Your task to perform on an android device: change the upload size in google photos Image 0: 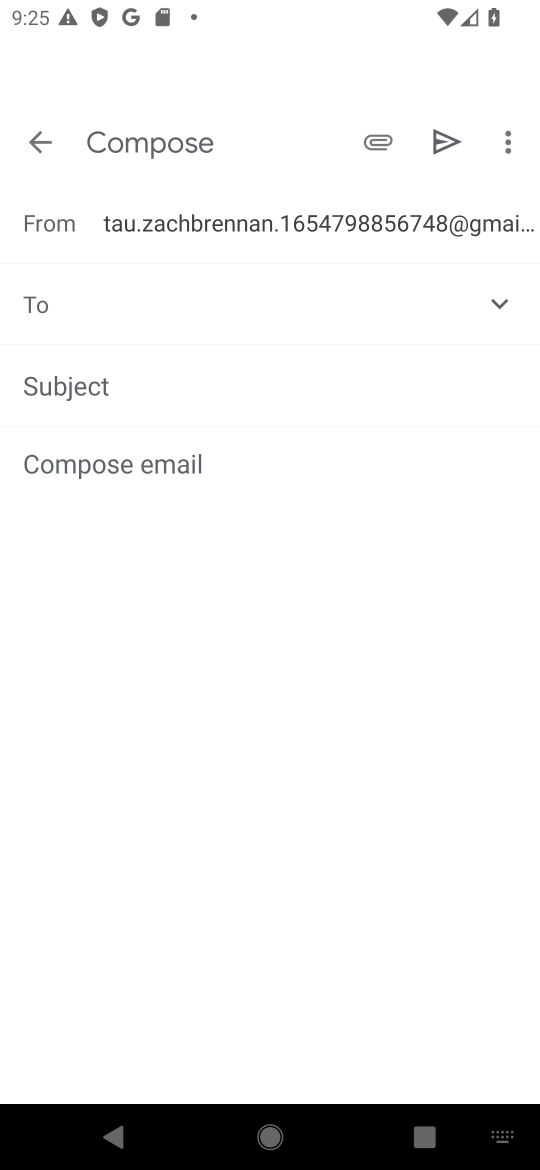
Step 0: press home button
Your task to perform on an android device: change the upload size in google photos Image 1: 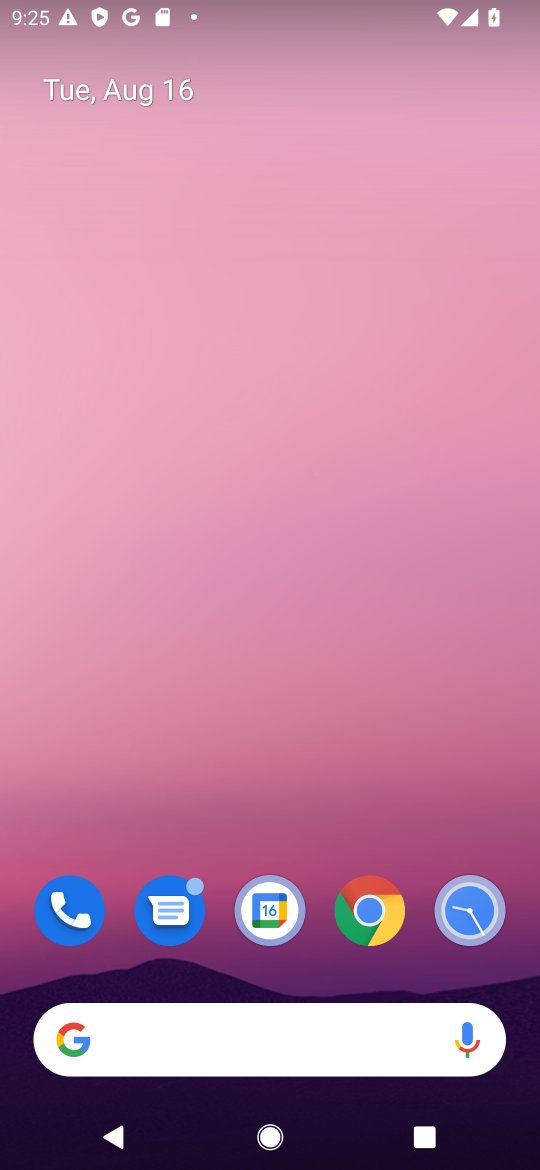
Step 1: drag from (304, 799) to (246, 8)
Your task to perform on an android device: change the upload size in google photos Image 2: 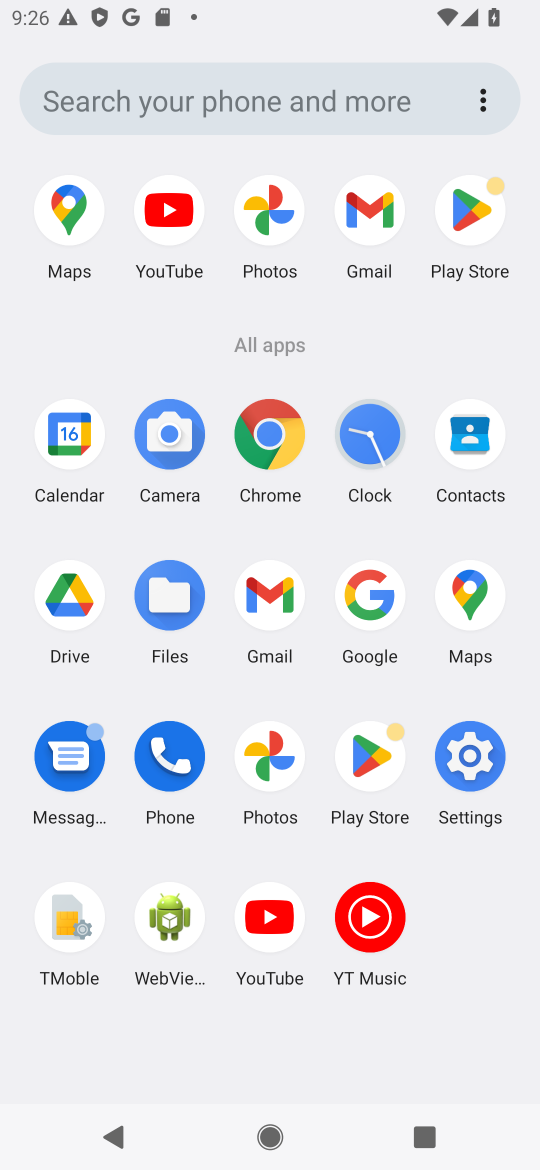
Step 2: click (265, 741)
Your task to perform on an android device: change the upload size in google photos Image 3: 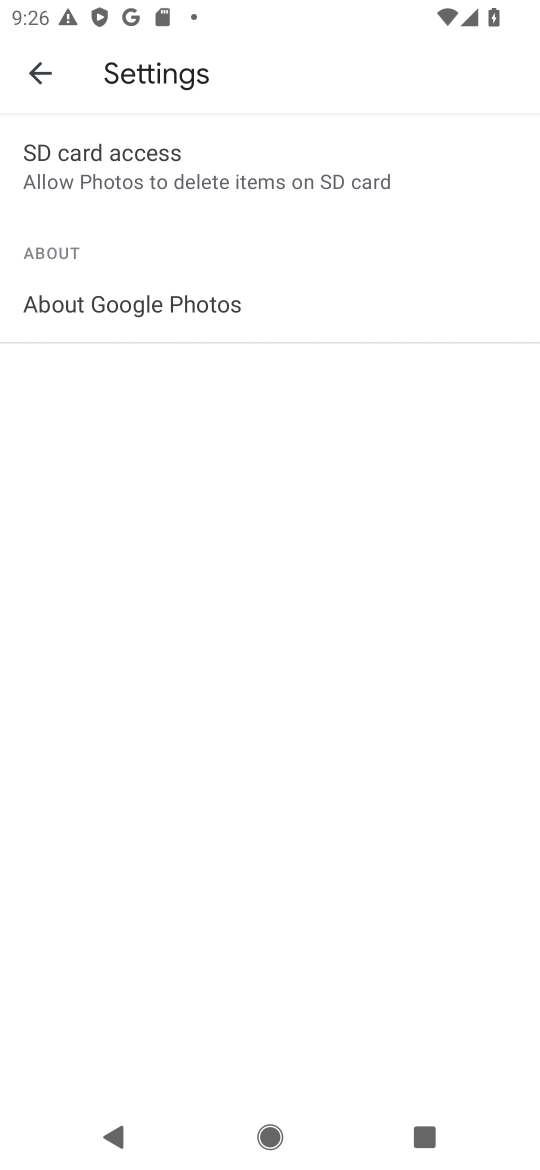
Step 3: click (41, 78)
Your task to perform on an android device: change the upload size in google photos Image 4: 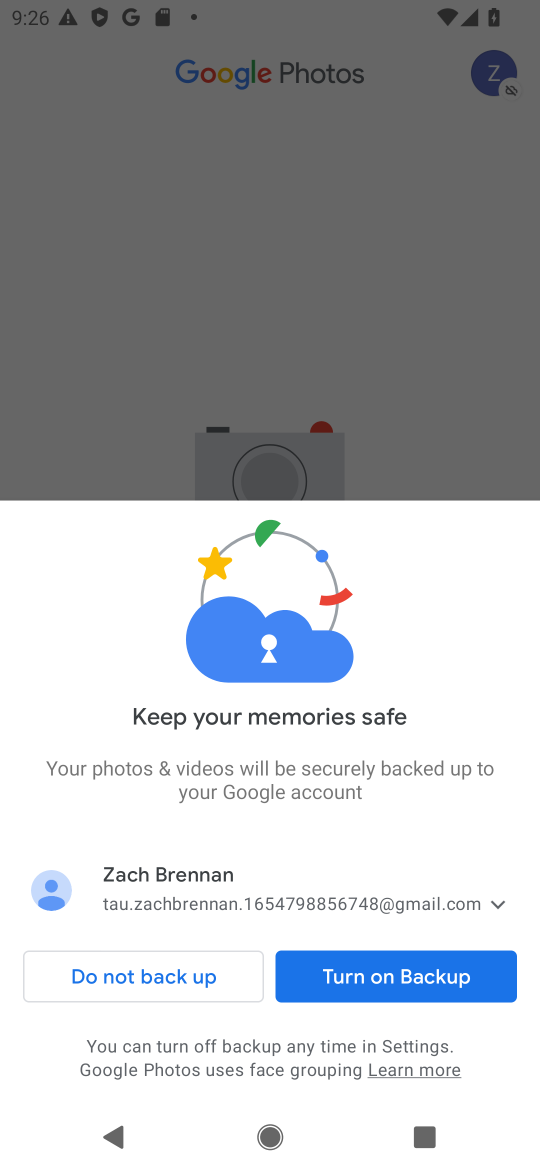
Step 4: click (441, 976)
Your task to perform on an android device: change the upload size in google photos Image 5: 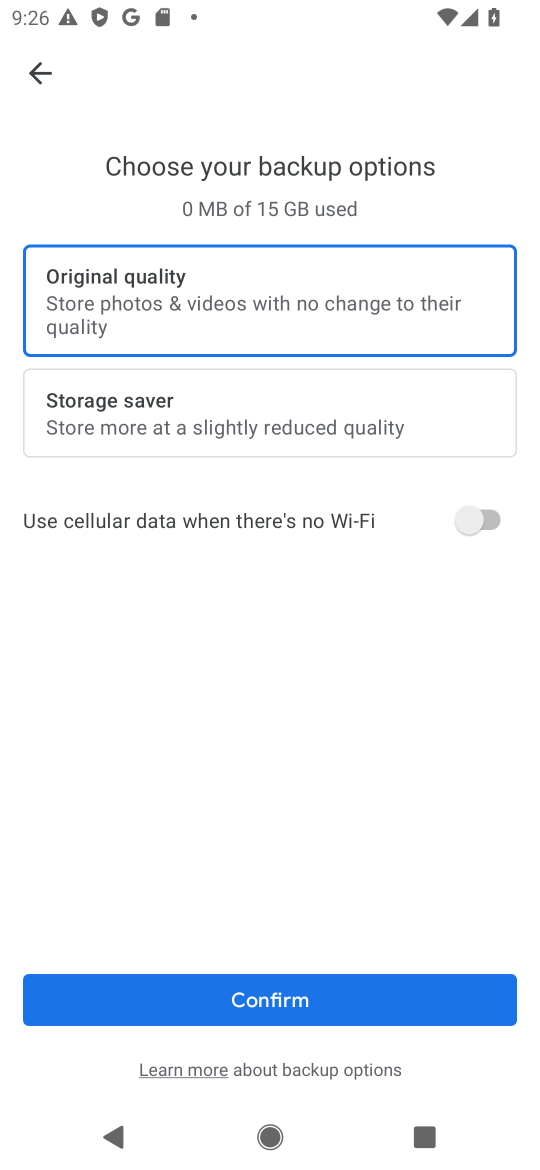
Step 5: click (435, 998)
Your task to perform on an android device: change the upload size in google photos Image 6: 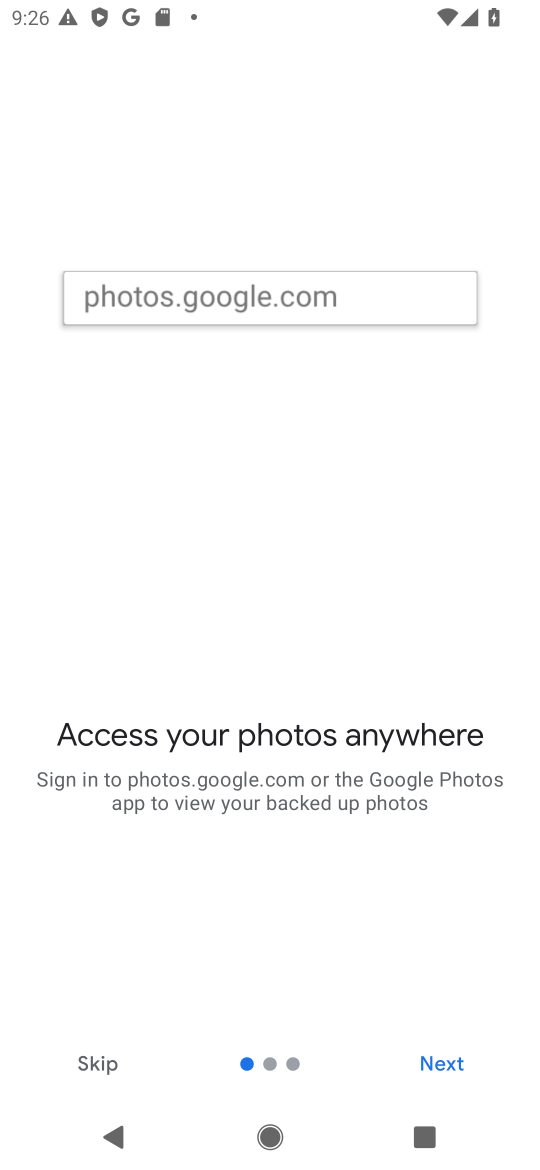
Step 6: click (447, 1060)
Your task to perform on an android device: change the upload size in google photos Image 7: 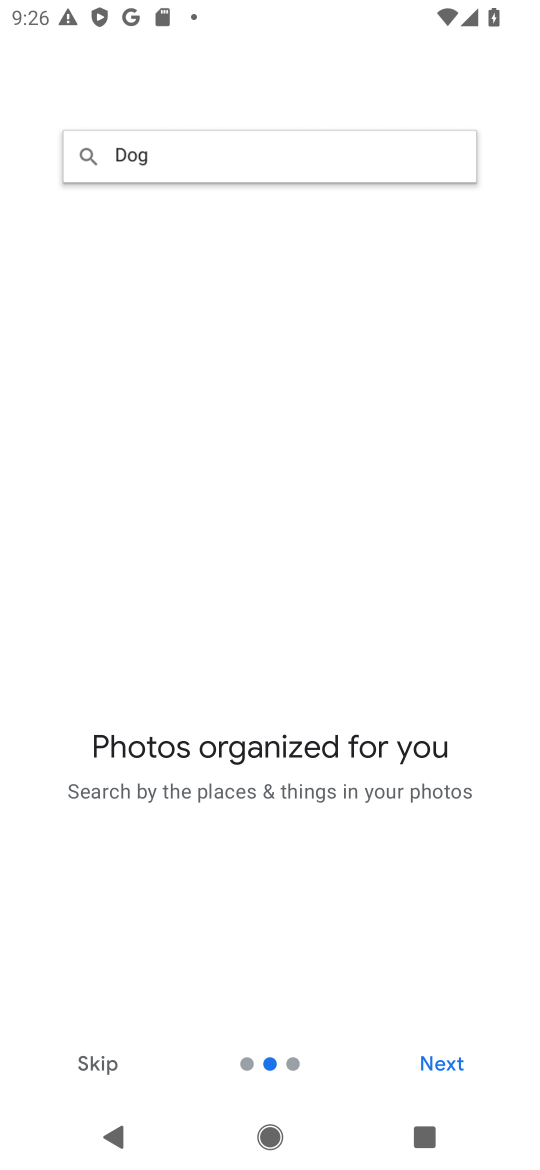
Step 7: click (447, 1060)
Your task to perform on an android device: change the upload size in google photos Image 8: 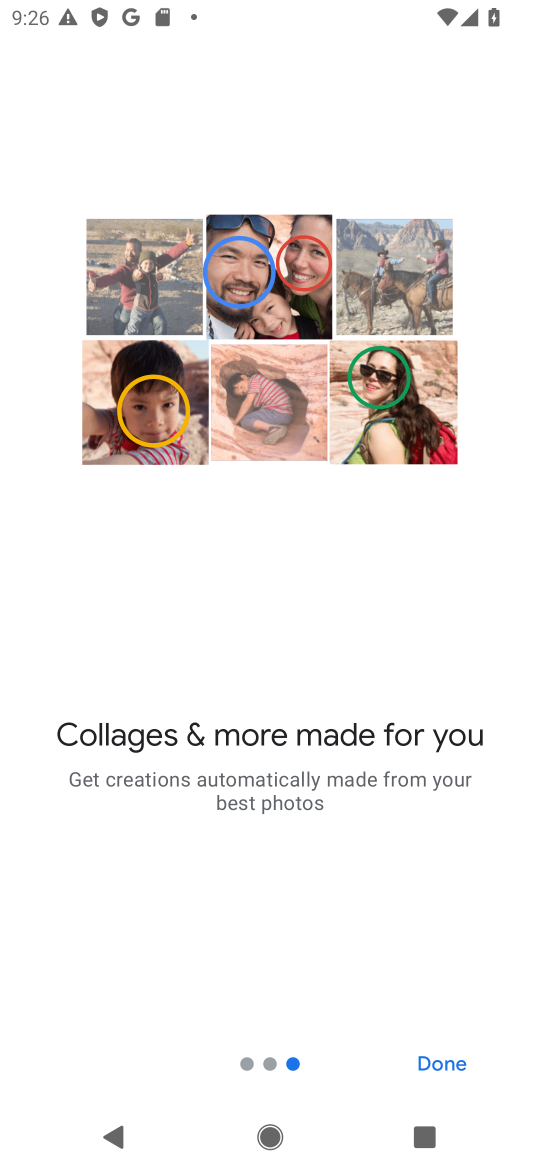
Step 8: click (447, 1060)
Your task to perform on an android device: change the upload size in google photos Image 9: 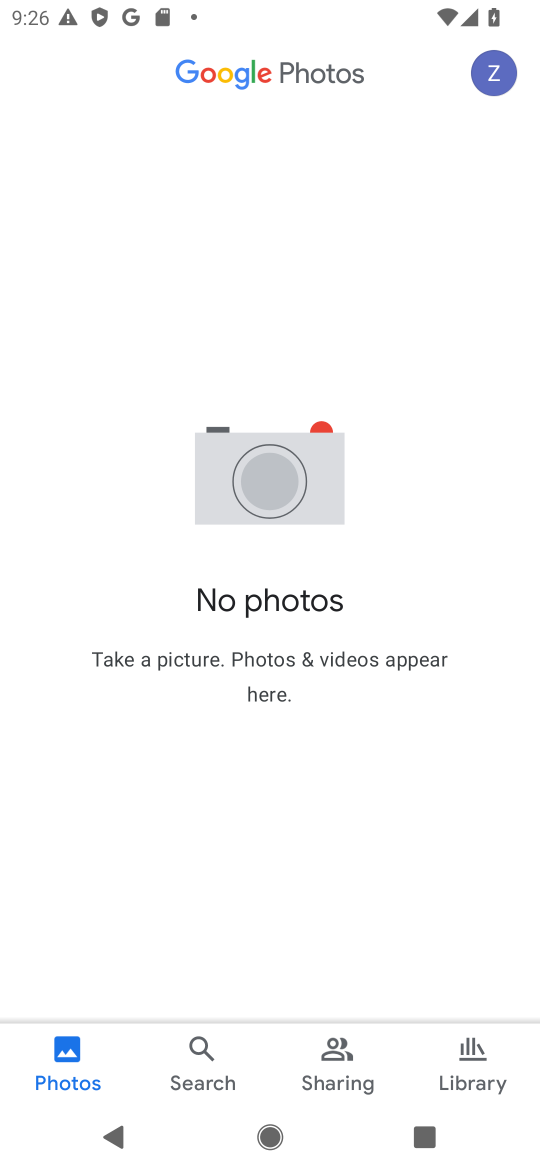
Step 9: click (494, 87)
Your task to perform on an android device: change the upload size in google photos Image 10: 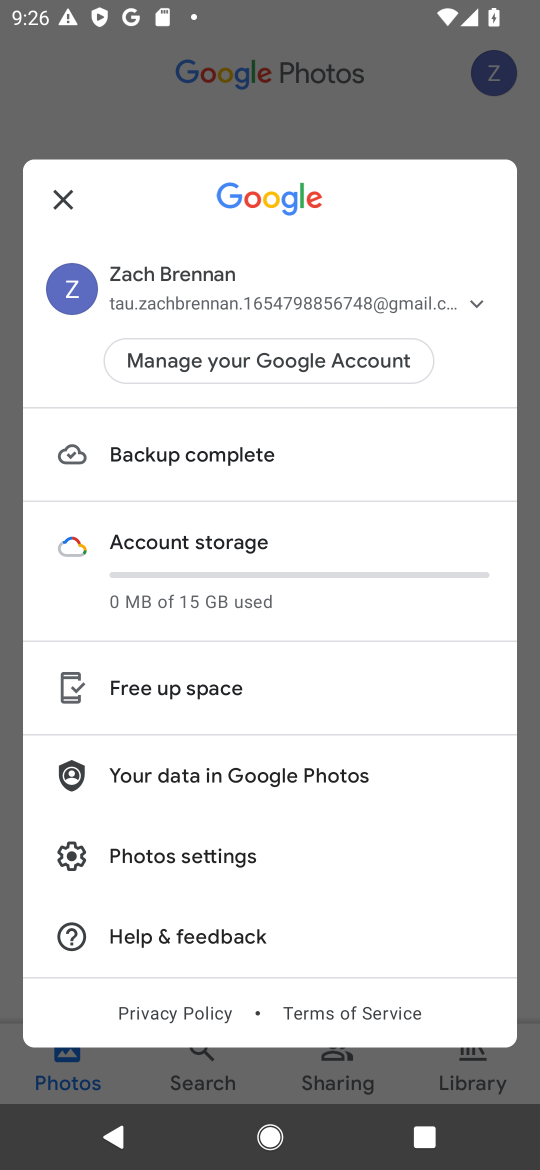
Step 10: click (250, 859)
Your task to perform on an android device: change the upload size in google photos Image 11: 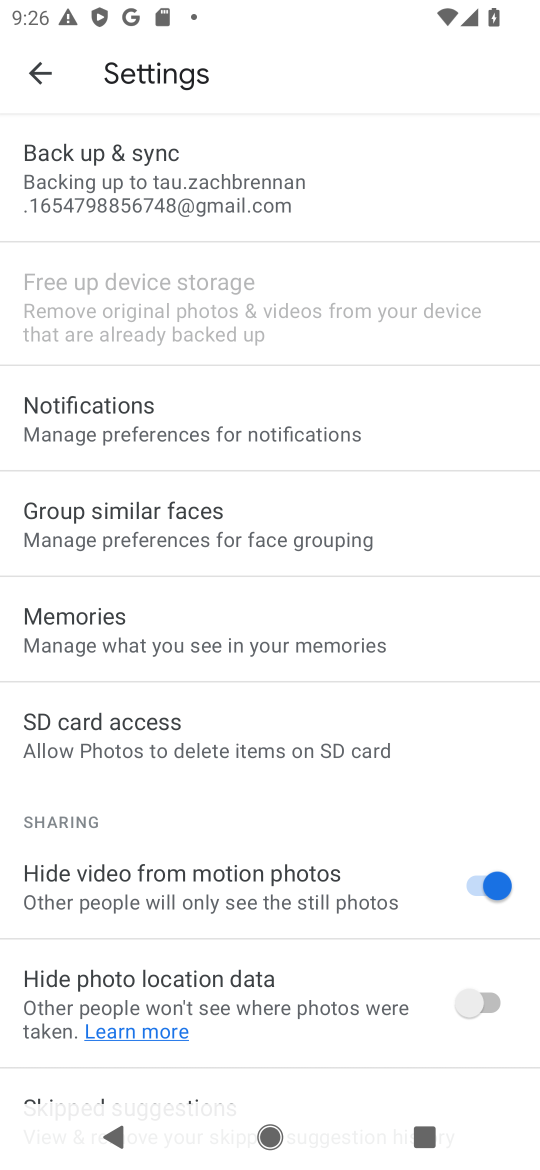
Step 11: click (148, 157)
Your task to perform on an android device: change the upload size in google photos Image 12: 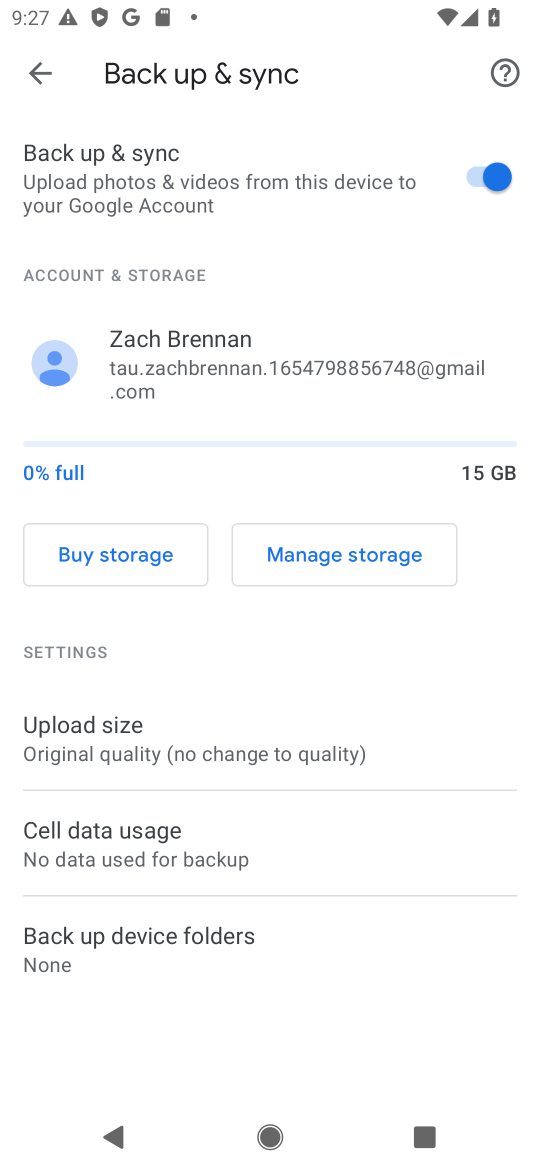
Step 12: click (123, 735)
Your task to perform on an android device: change the upload size in google photos Image 13: 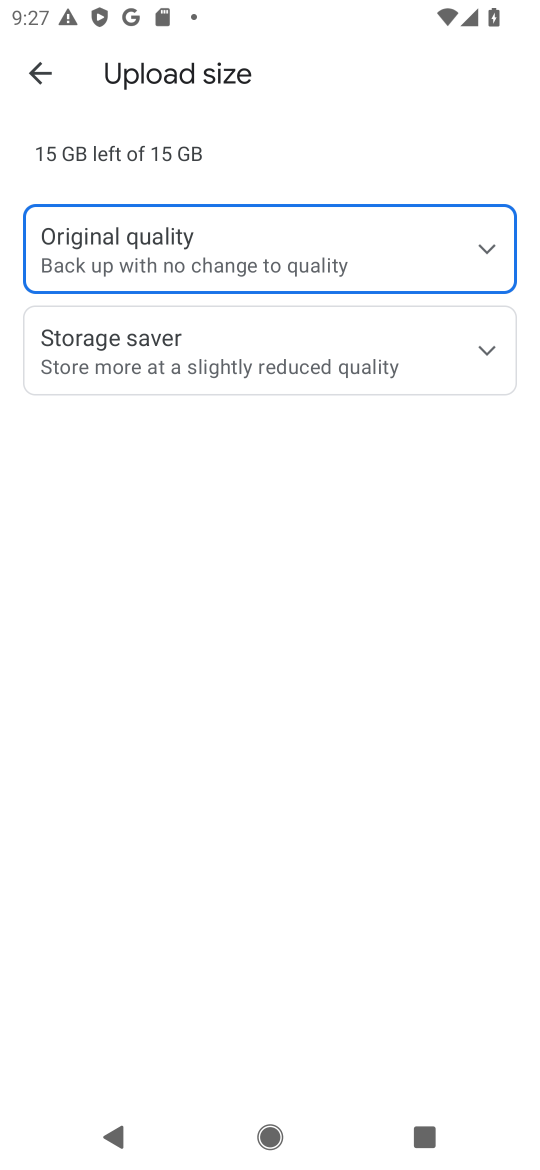
Step 13: click (144, 359)
Your task to perform on an android device: change the upload size in google photos Image 14: 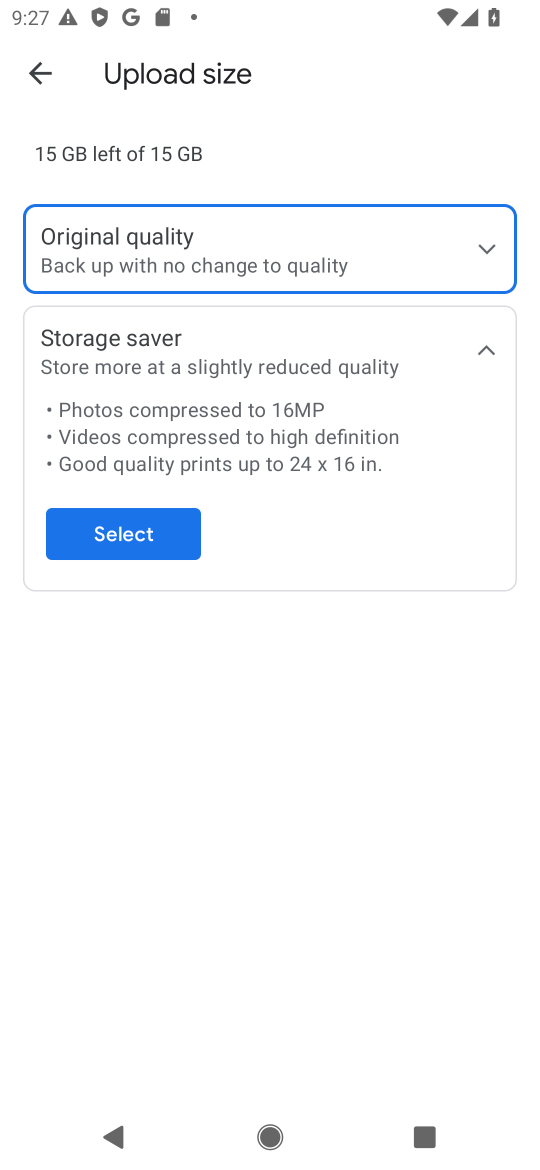
Step 14: click (144, 359)
Your task to perform on an android device: change the upload size in google photos Image 15: 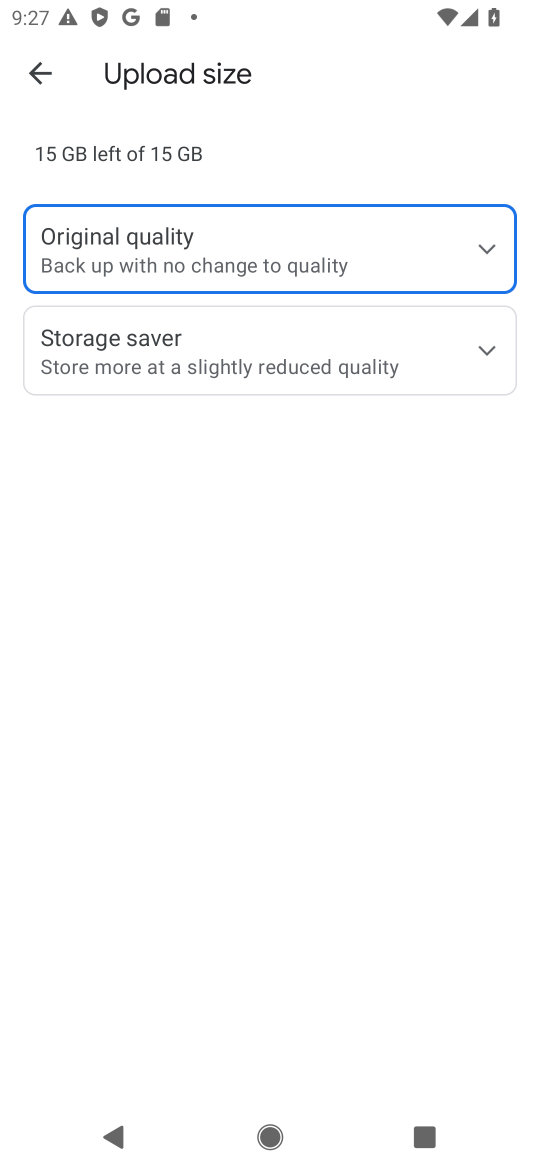
Step 15: click (144, 359)
Your task to perform on an android device: change the upload size in google photos Image 16: 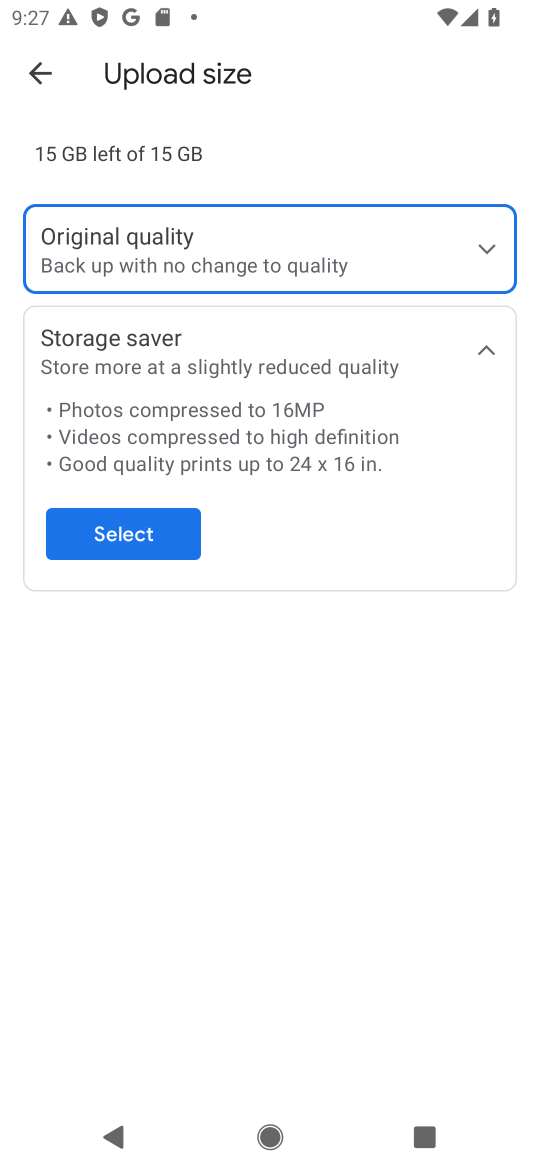
Step 16: click (155, 542)
Your task to perform on an android device: change the upload size in google photos Image 17: 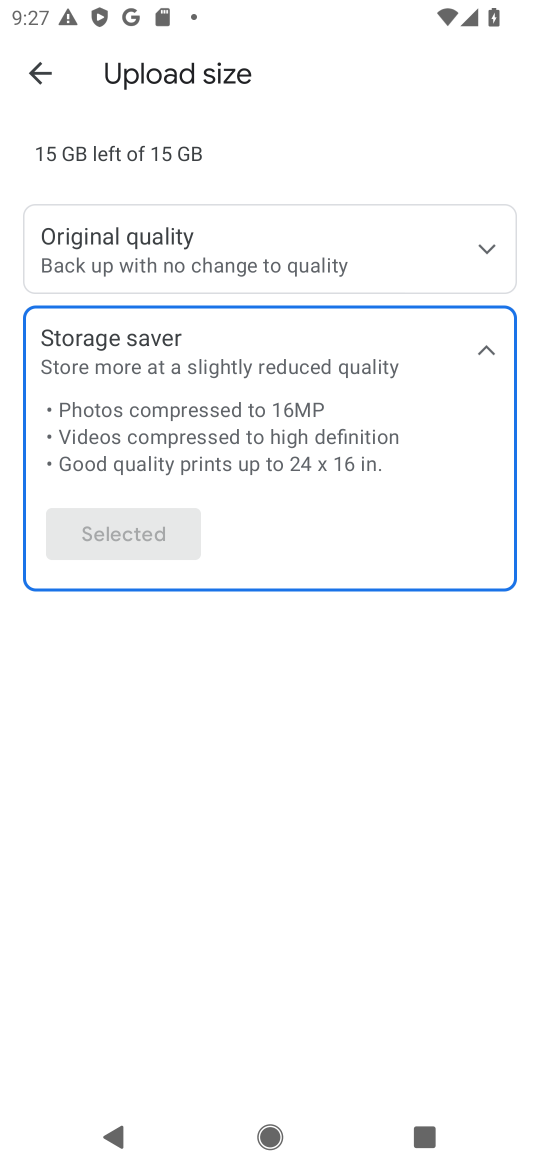
Step 17: task complete